Your task to perform on an android device: clear all cookies in the chrome app Image 0: 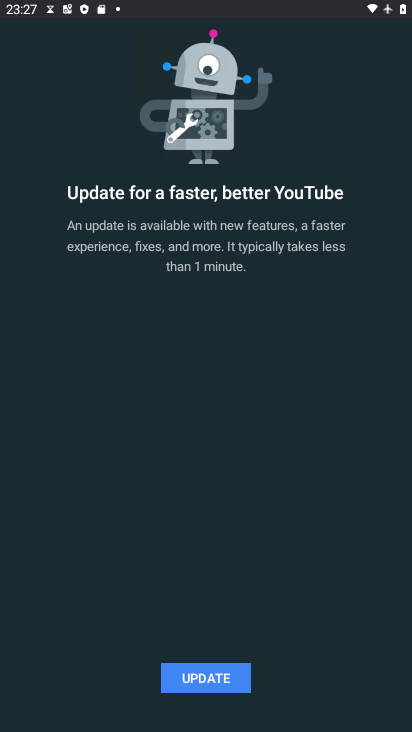
Step 0: press home button
Your task to perform on an android device: clear all cookies in the chrome app Image 1: 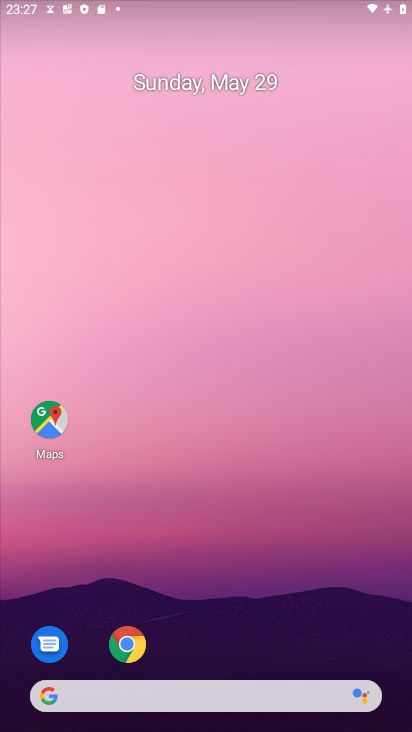
Step 1: drag from (214, 613) to (254, 243)
Your task to perform on an android device: clear all cookies in the chrome app Image 2: 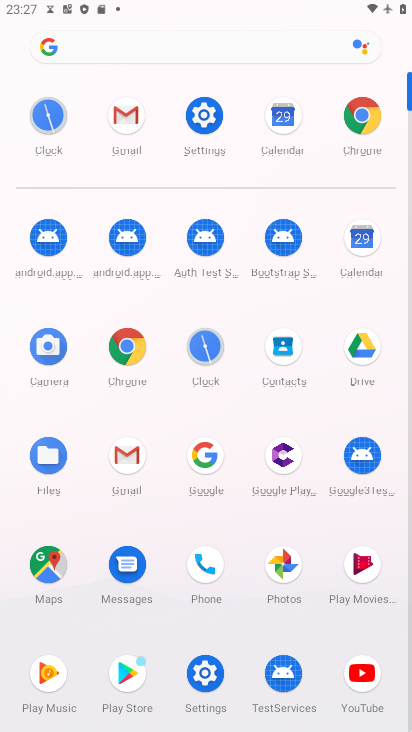
Step 2: click (358, 105)
Your task to perform on an android device: clear all cookies in the chrome app Image 3: 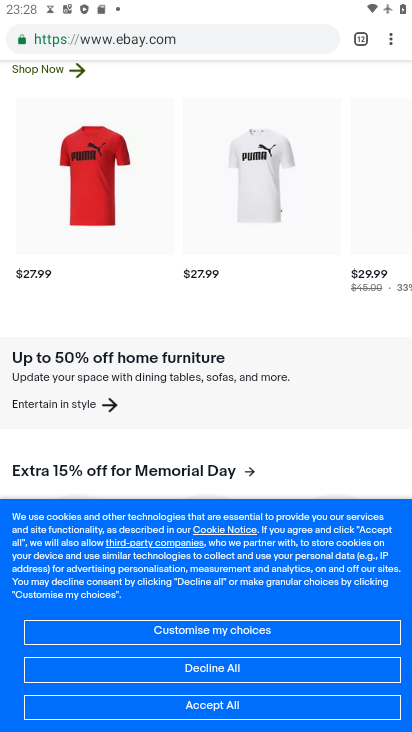
Step 3: click (391, 45)
Your task to perform on an android device: clear all cookies in the chrome app Image 4: 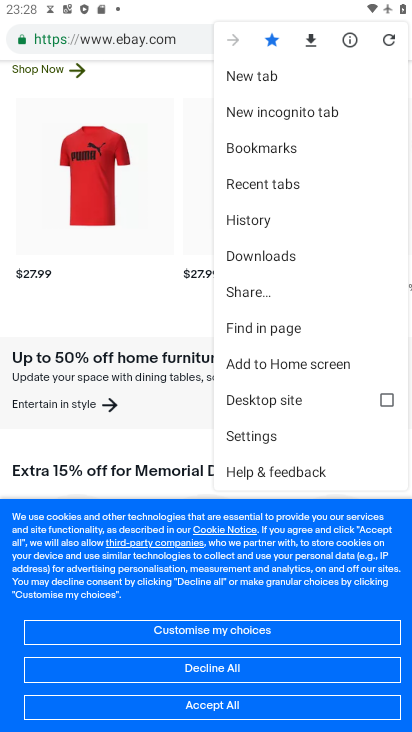
Step 4: click (275, 424)
Your task to perform on an android device: clear all cookies in the chrome app Image 5: 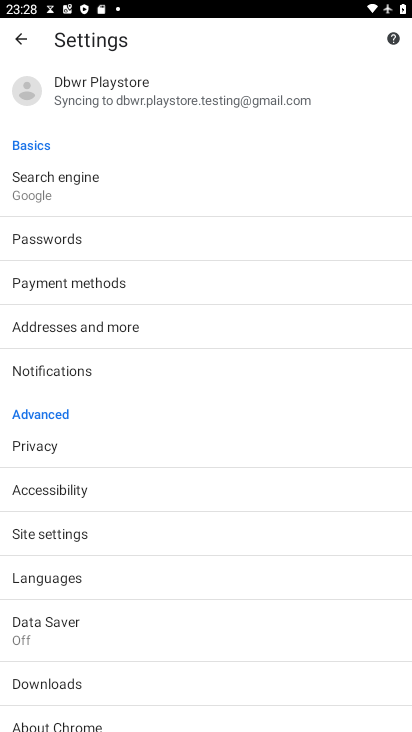
Step 5: click (90, 524)
Your task to perform on an android device: clear all cookies in the chrome app Image 6: 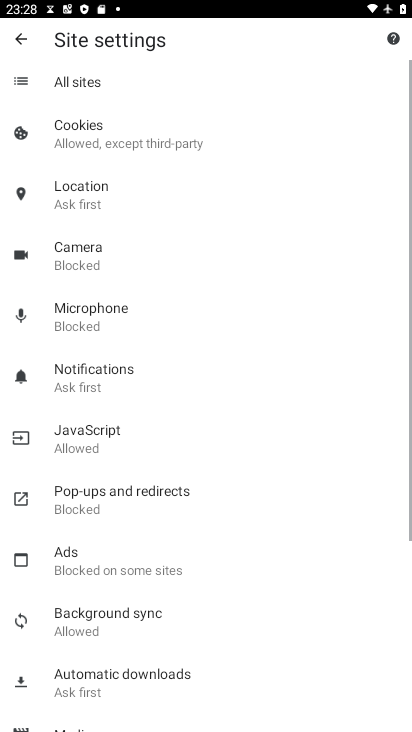
Step 6: click (88, 132)
Your task to perform on an android device: clear all cookies in the chrome app Image 7: 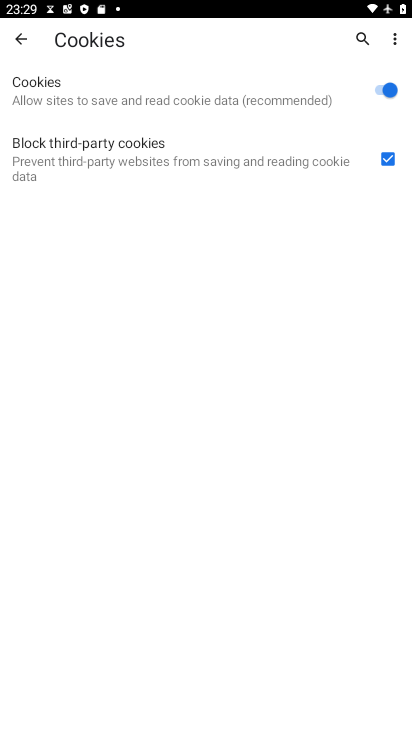
Step 7: task complete